Your task to perform on an android device: check battery use Image 0: 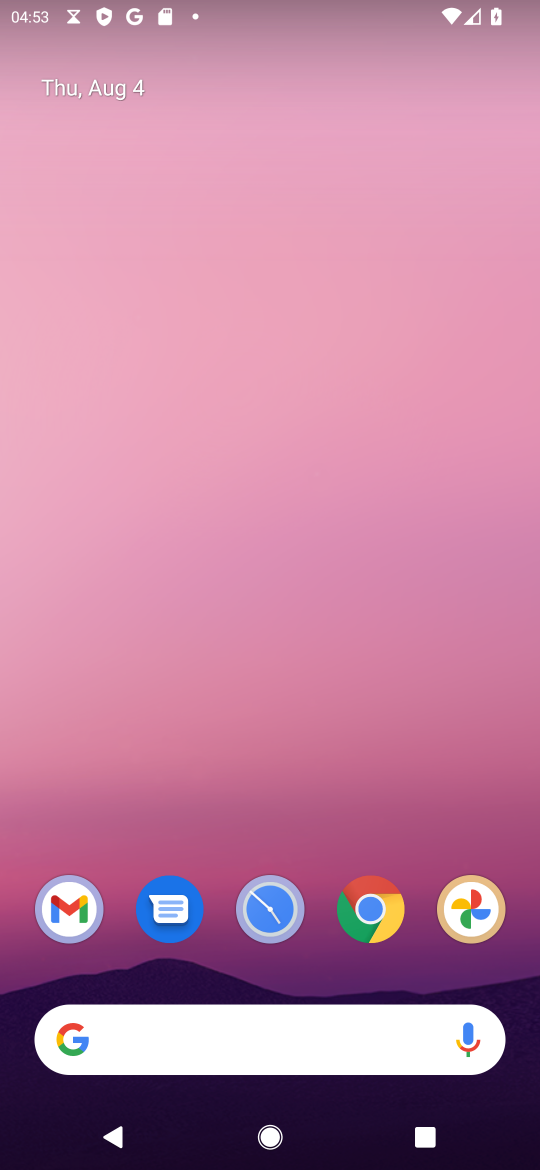
Step 0: press home button
Your task to perform on an android device: check battery use Image 1: 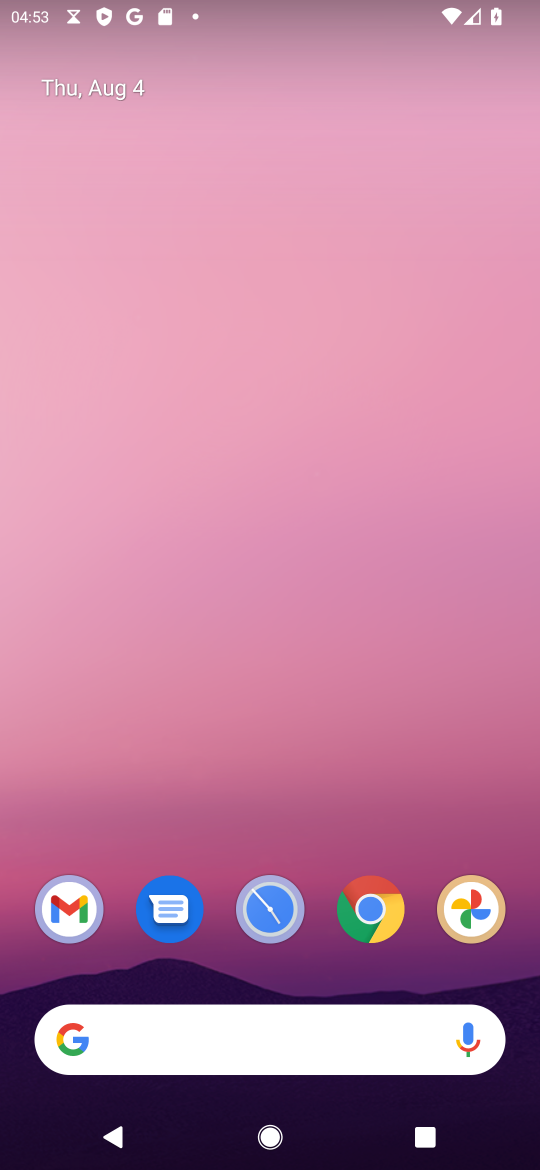
Step 1: drag from (270, 1055) to (384, 430)
Your task to perform on an android device: check battery use Image 2: 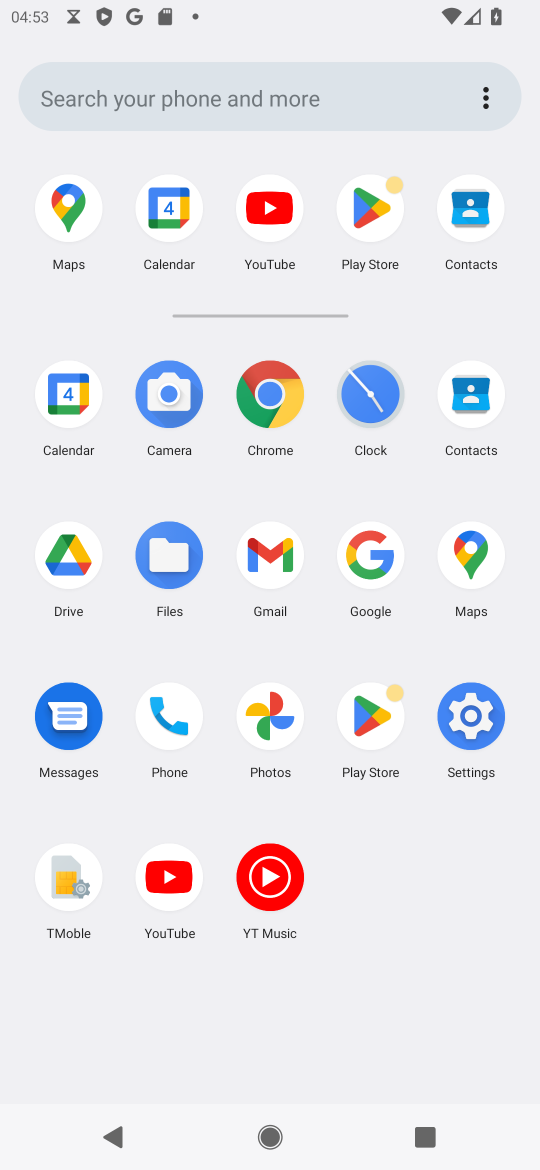
Step 2: click (458, 713)
Your task to perform on an android device: check battery use Image 3: 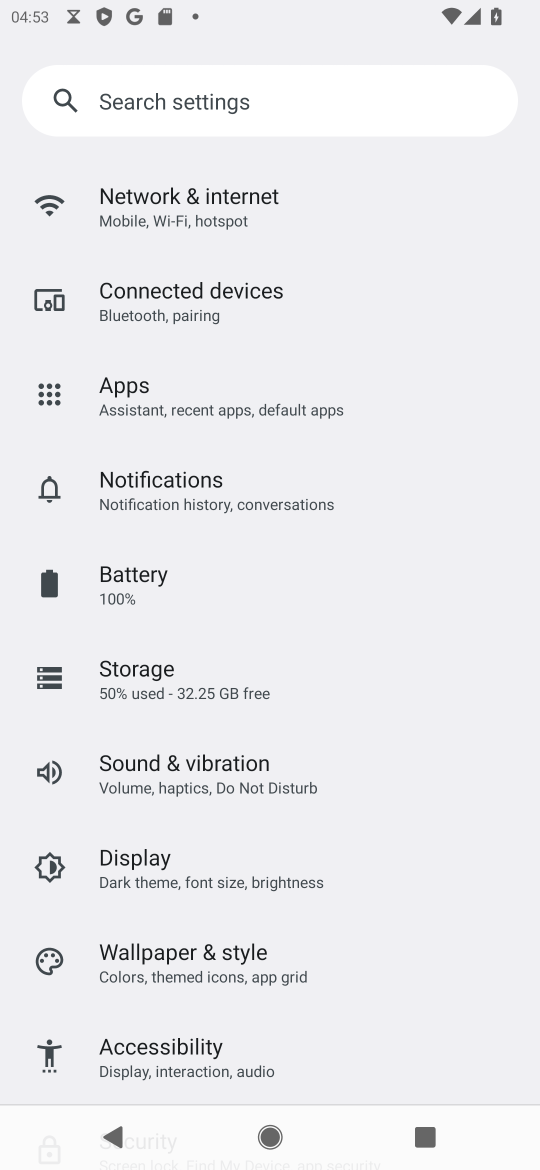
Step 3: click (141, 585)
Your task to perform on an android device: check battery use Image 4: 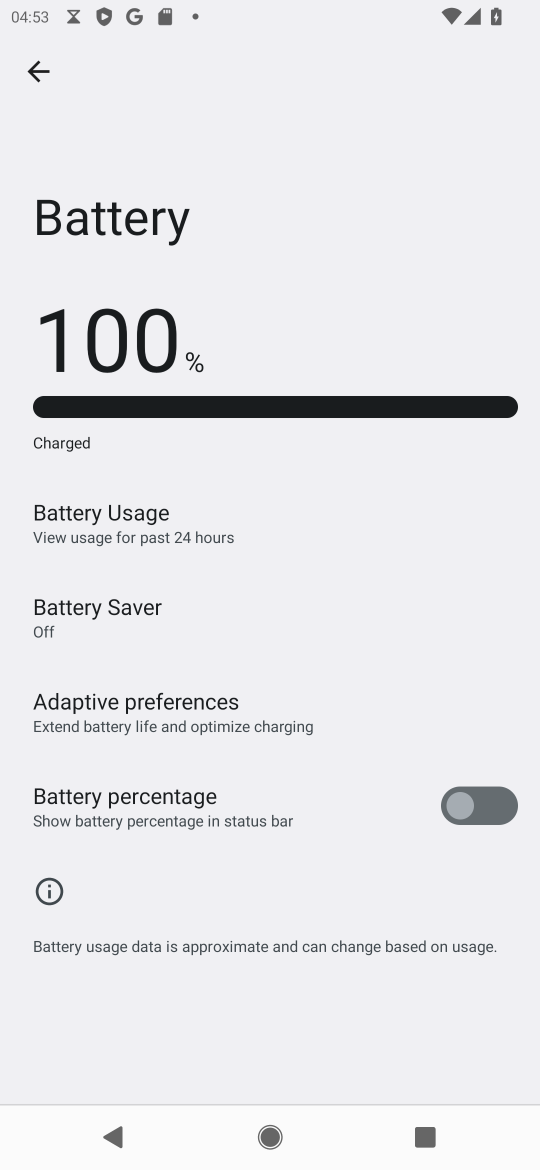
Step 4: click (128, 532)
Your task to perform on an android device: check battery use Image 5: 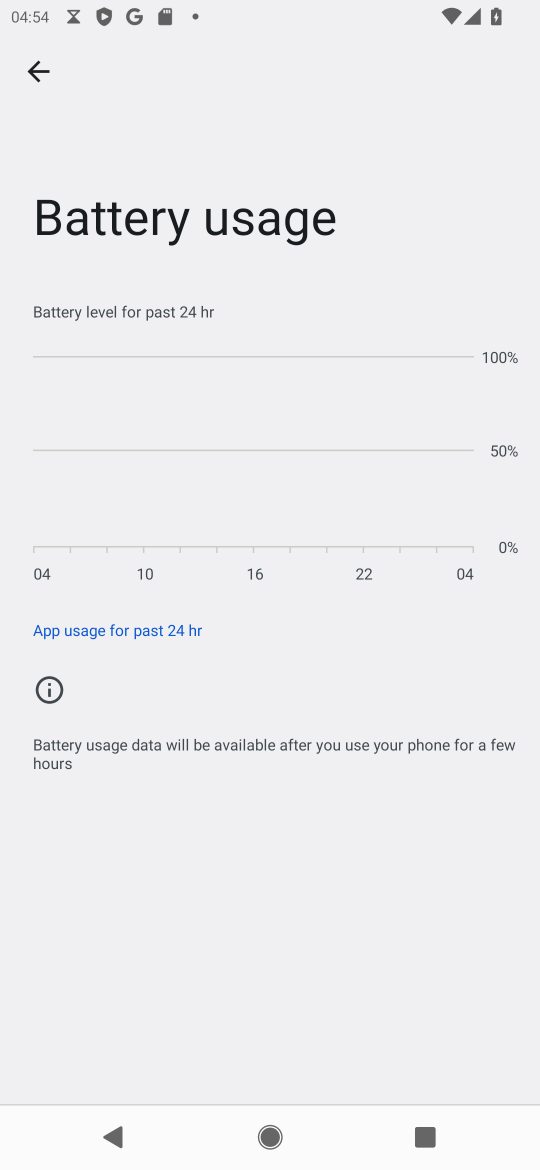
Step 5: task complete